Your task to perform on an android device: Open Yahoo.com Image 0: 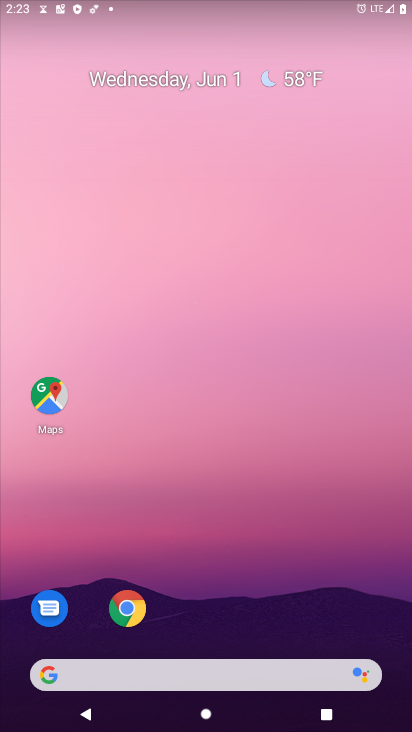
Step 0: click (119, 601)
Your task to perform on an android device: Open Yahoo.com Image 1: 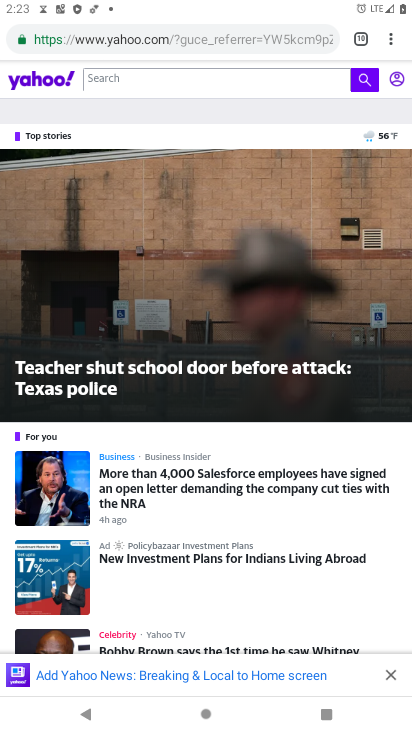
Step 1: task complete